Your task to perform on an android device: open chrome and create a bookmark for the current page Image 0: 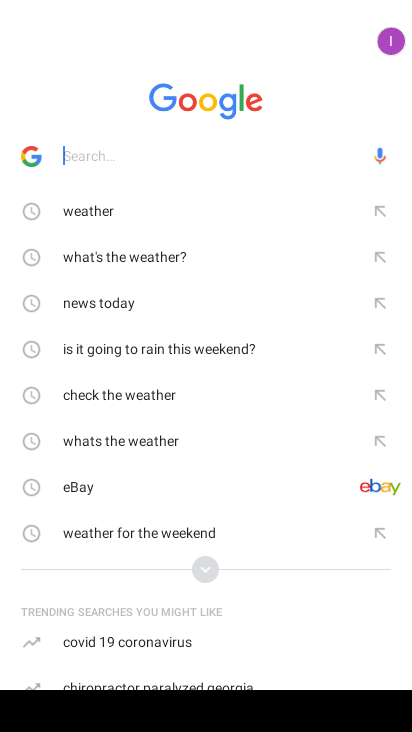
Step 0: press home button
Your task to perform on an android device: open chrome and create a bookmark for the current page Image 1: 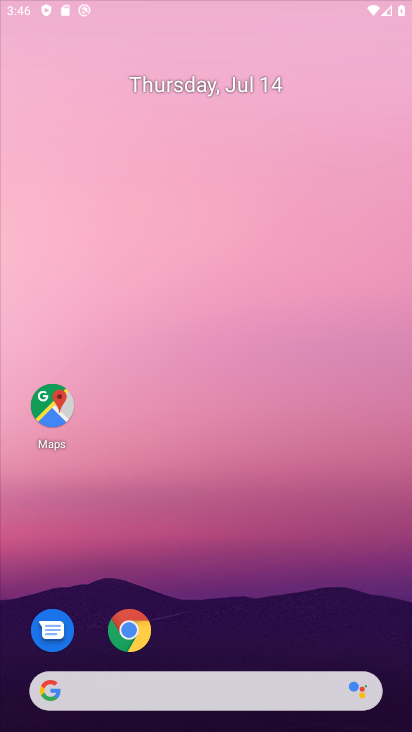
Step 1: drag from (234, 672) to (221, 12)
Your task to perform on an android device: open chrome and create a bookmark for the current page Image 2: 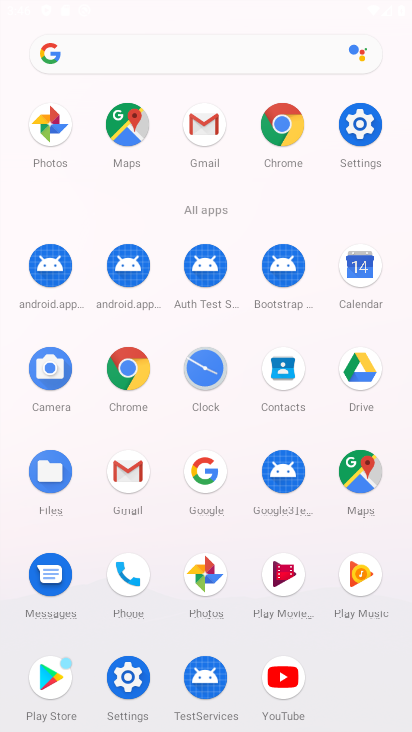
Step 2: click (130, 354)
Your task to perform on an android device: open chrome and create a bookmark for the current page Image 3: 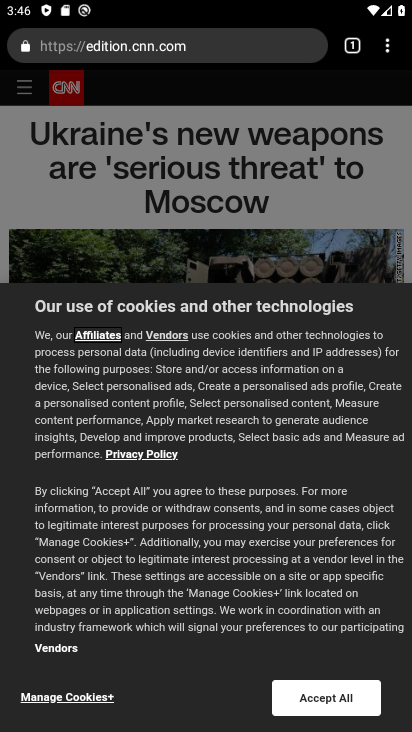
Step 3: task complete